Your task to perform on an android device: change keyboard looks Image 0: 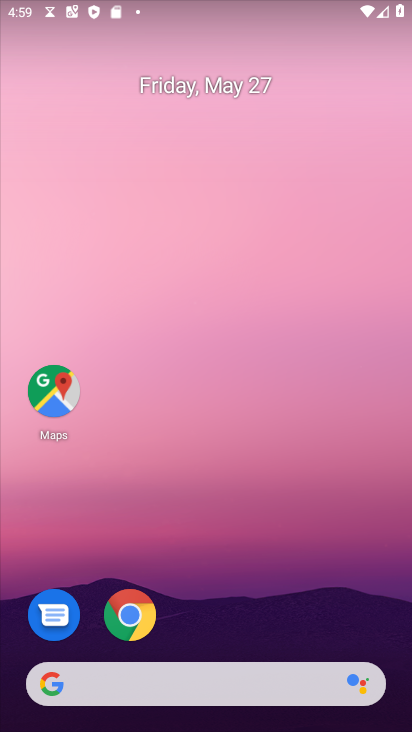
Step 0: drag from (271, 579) to (137, 15)
Your task to perform on an android device: change keyboard looks Image 1: 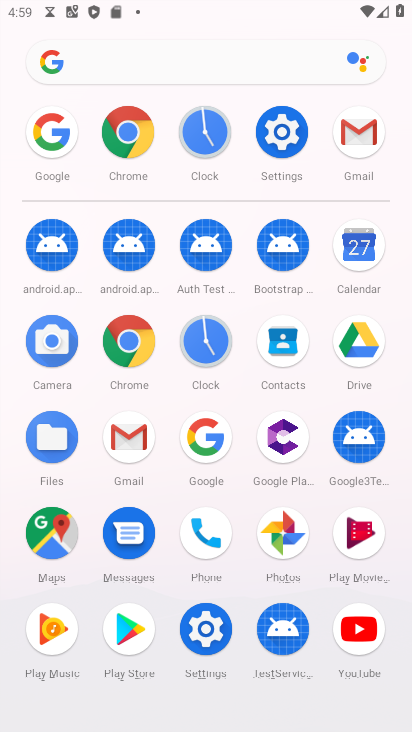
Step 1: click (283, 141)
Your task to perform on an android device: change keyboard looks Image 2: 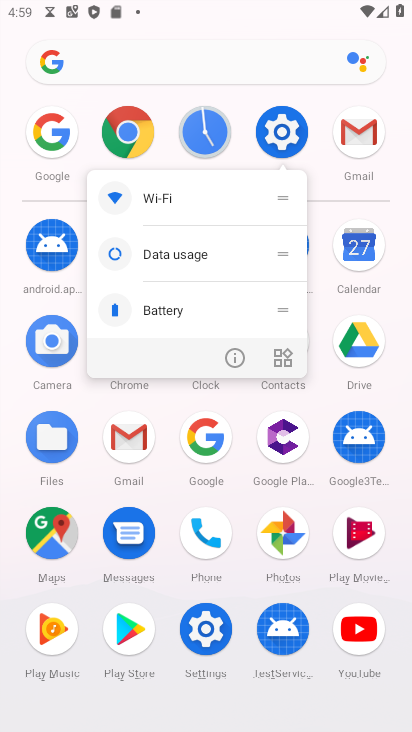
Step 2: click (285, 138)
Your task to perform on an android device: change keyboard looks Image 3: 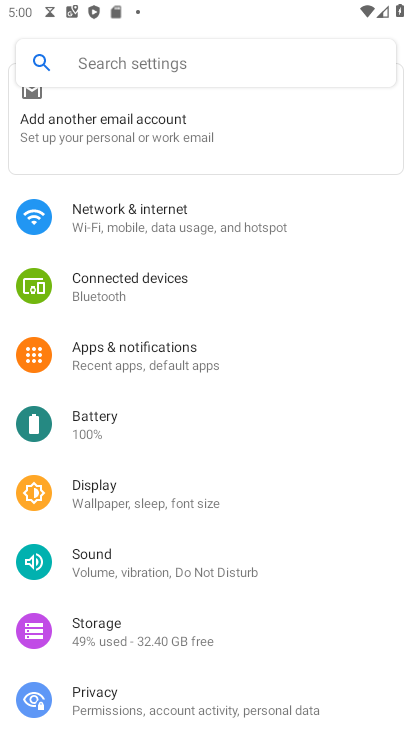
Step 3: drag from (209, 631) to (141, 170)
Your task to perform on an android device: change keyboard looks Image 4: 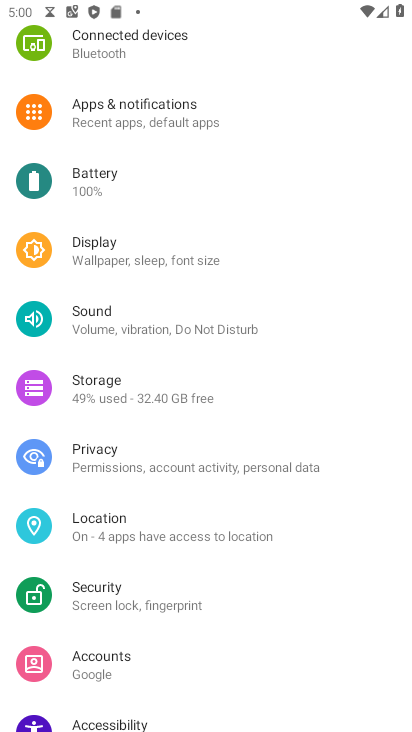
Step 4: drag from (204, 665) to (207, 109)
Your task to perform on an android device: change keyboard looks Image 5: 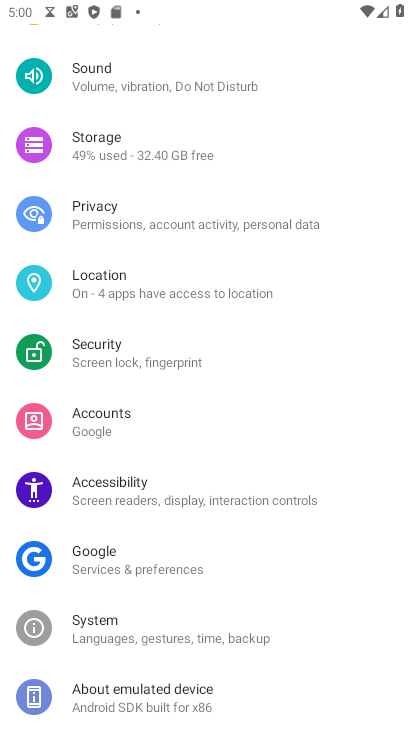
Step 5: click (166, 626)
Your task to perform on an android device: change keyboard looks Image 6: 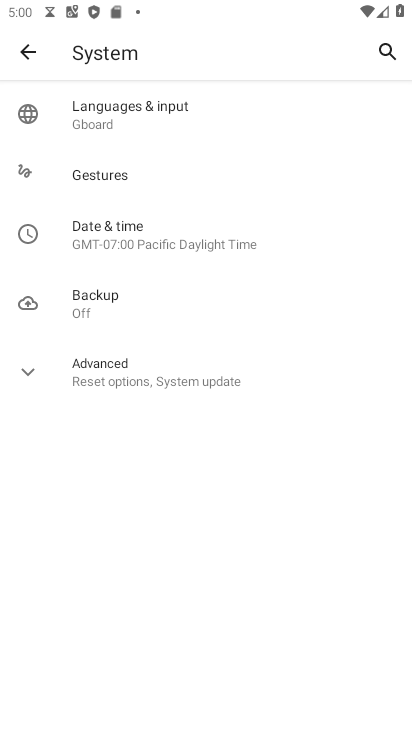
Step 6: click (161, 113)
Your task to perform on an android device: change keyboard looks Image 7: 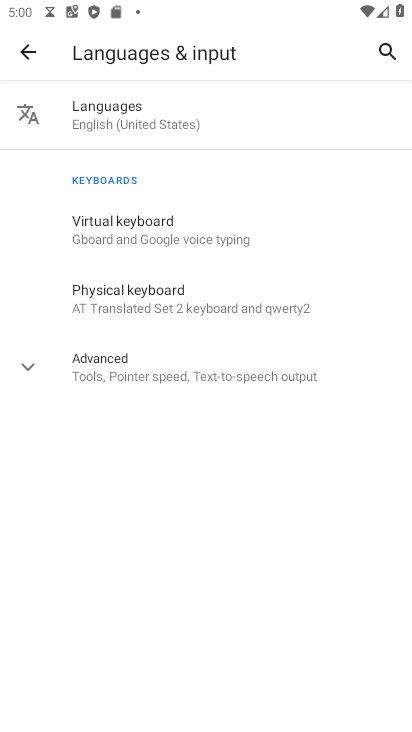
Step 7: click (157, 217)
Your task to perform on an android device: change keyboard looks Image 8: 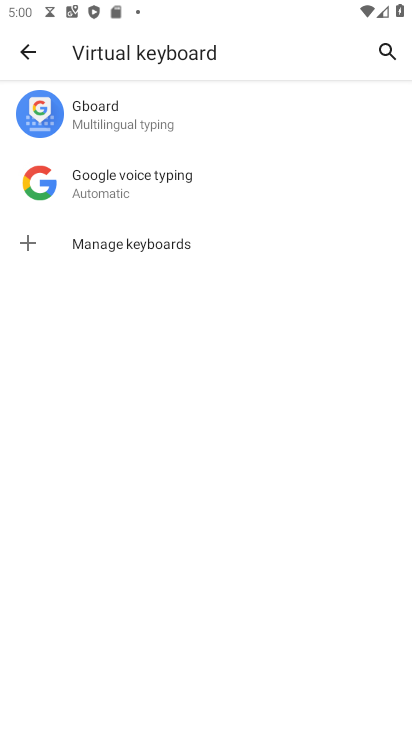
Step 8: click (207, 114)
Your task to perform on an android device: change keyboard looks Image 9: 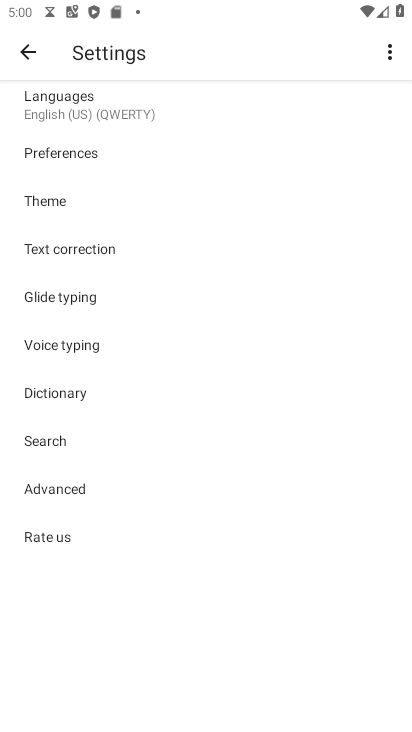
Step 9: click (112, 206)
Your task to perform on an android device: change keyboard looks Image 10: 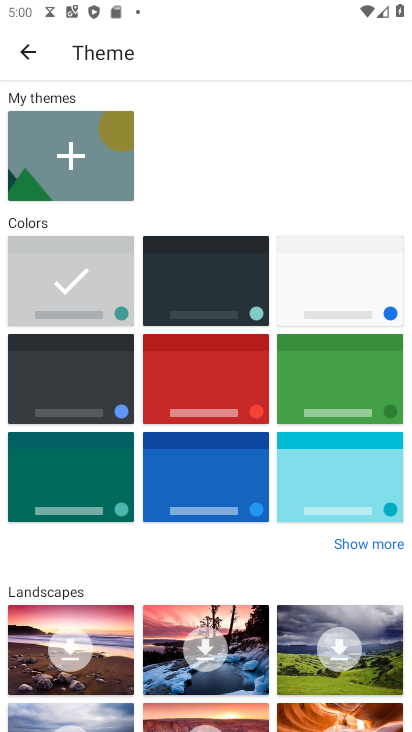
Step 10: click (221, 426)
Your task to perform on an android device: change keyboard looks Image 11: 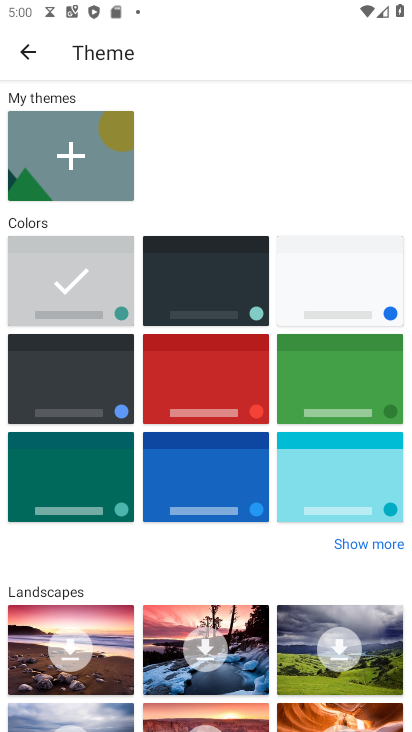
Step 11: click (146, 362)
Your task to perform on an android device: change keyboard looks Image 12: 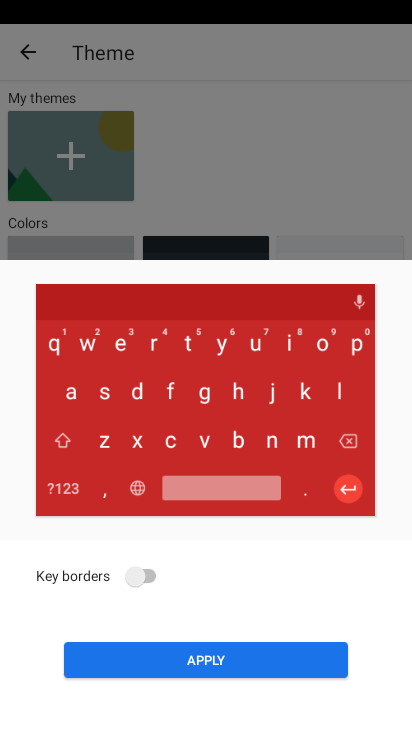
Step 12: click (233, 655)
Your task to perform on an android device: change keyboard looks Image 13: 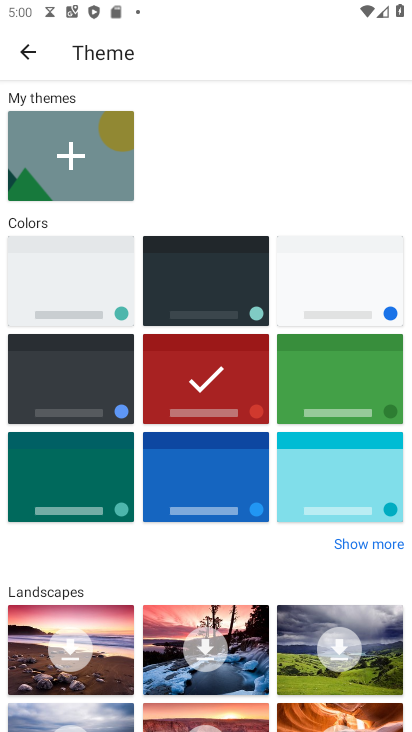
Step 13: task complete